Your task to perform on an android device: open a bookmark in the chrome app Image 0: 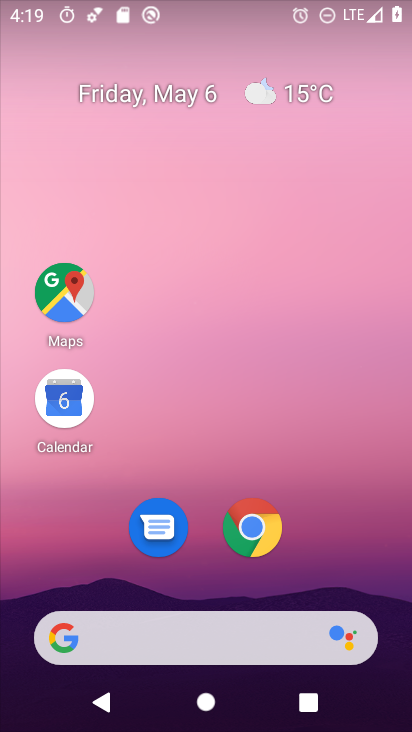
Step 0: drag from (344, 454) to (348, 57)
Your task to perform on an android device: open a bookmark in the chrome app Image 1: 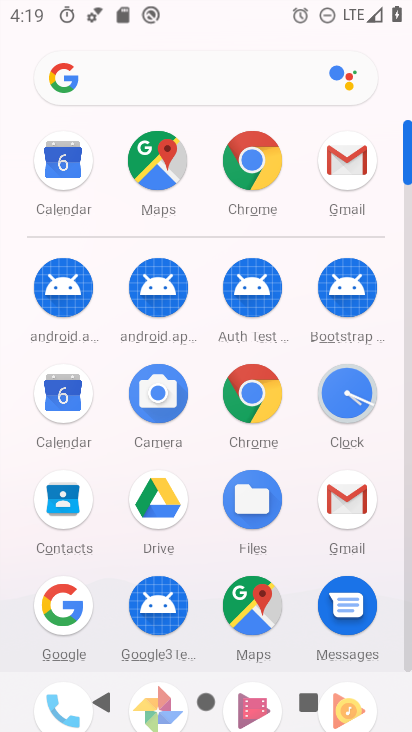
Step 1: click (260, 393)
Your task to perform on an android device: open a bookmark in the chrome app Image 2: 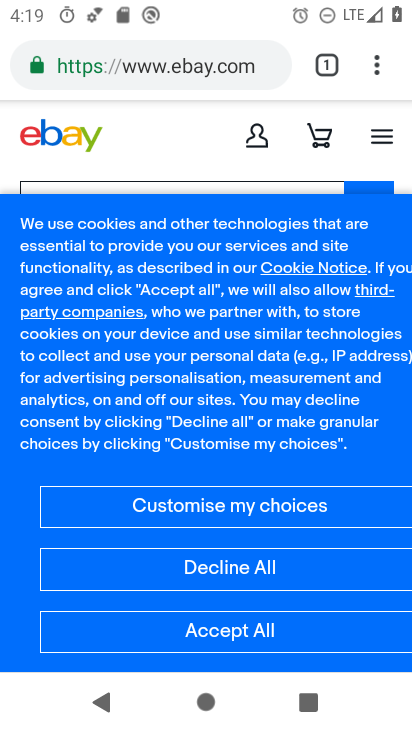
Step 2: task complete